Your task to perform on an android device: Open display settings Image 0: 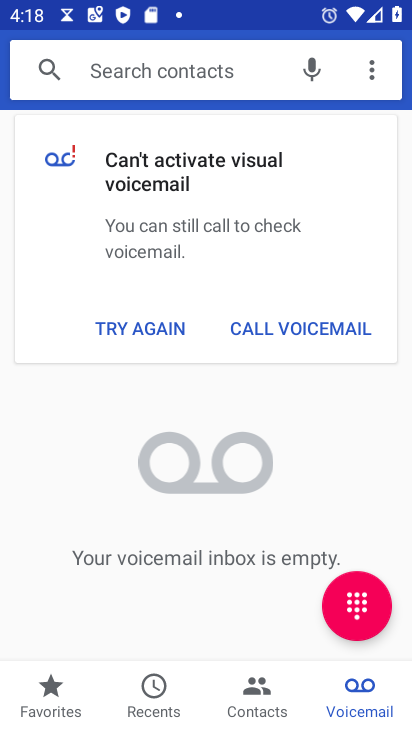
Step 0: drag from (212, 657) to (194, 282)
Your task to perform on an android device: Open display settings Image 1: 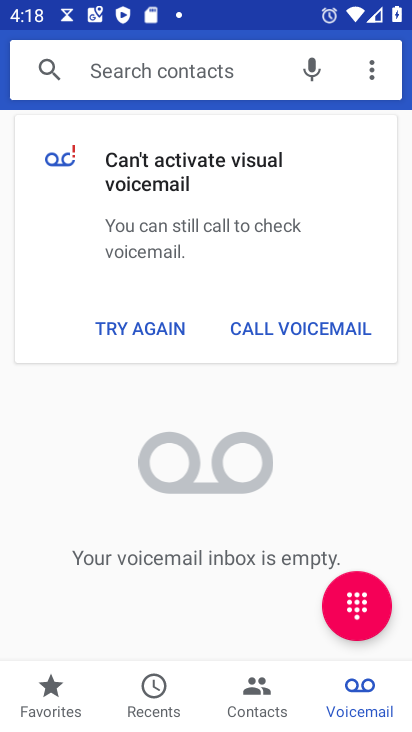
Step 1: press home button
Your task to perform on an android device: Open display settings Image 2: 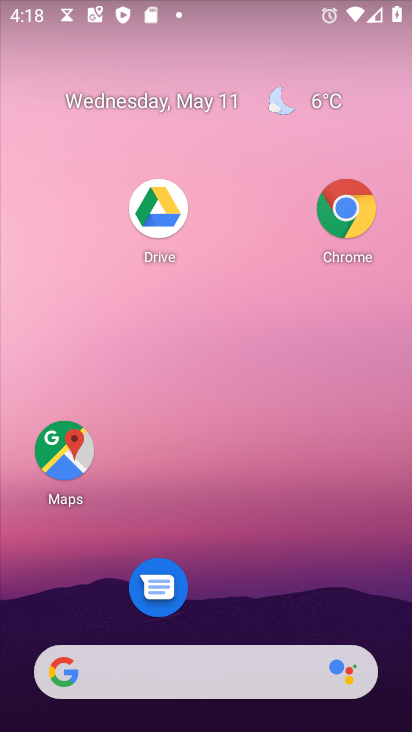
Step 2: drag from (241, 609) to (260, 119)
Your task to perform on an android device: Open display settings Image 3: 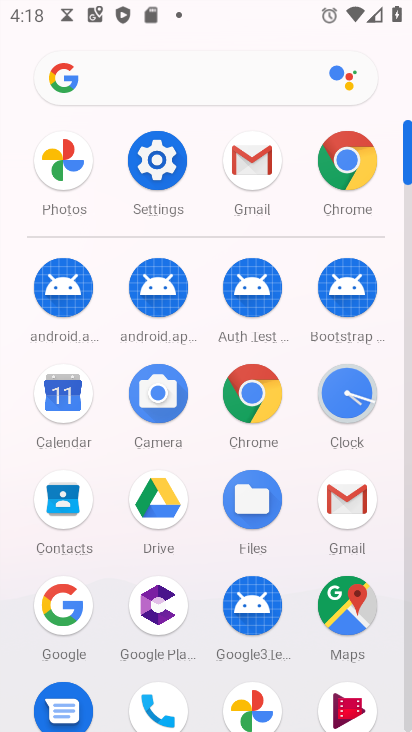
Step 3: click (171, 152)
Your task to perform on an android device: Open display settings Image 4: 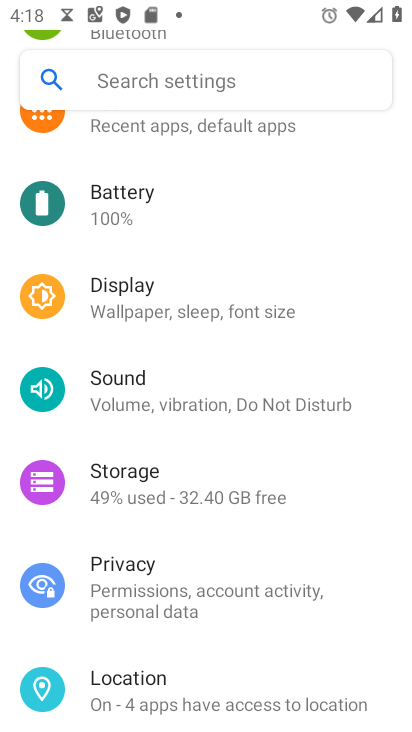
Step 4: click (188, 306)
Your task to perform on an android device: Open display settings Image 5: 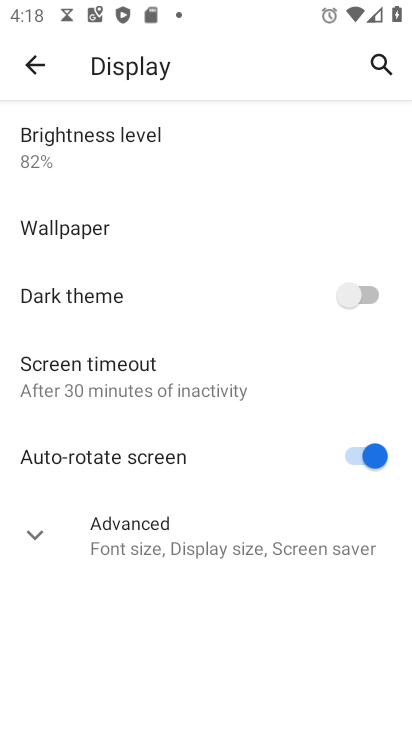
Step 5: task complete